Your task to perform on an android device: Go to display settings Image 0: 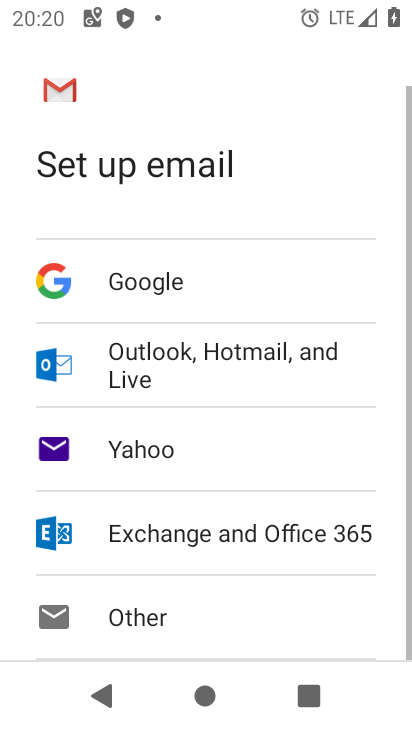
Step 0: press home button
Your task to perform on an android device: Go to display settings Image 1: 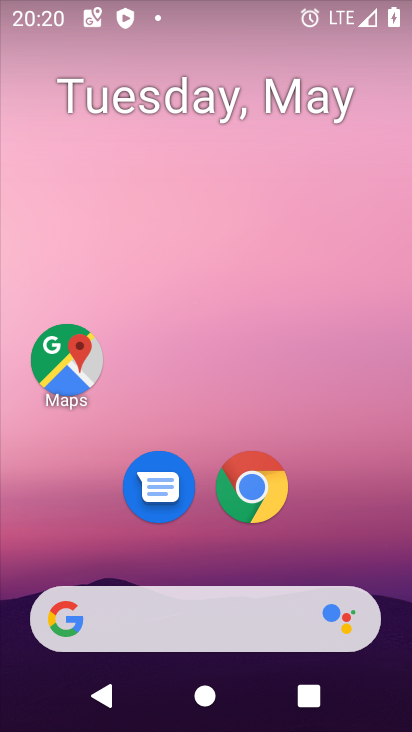
Step 1: drag from (324, 507) to (146, 121)
Your task to perform on an android device: Go to display settings Image 2: 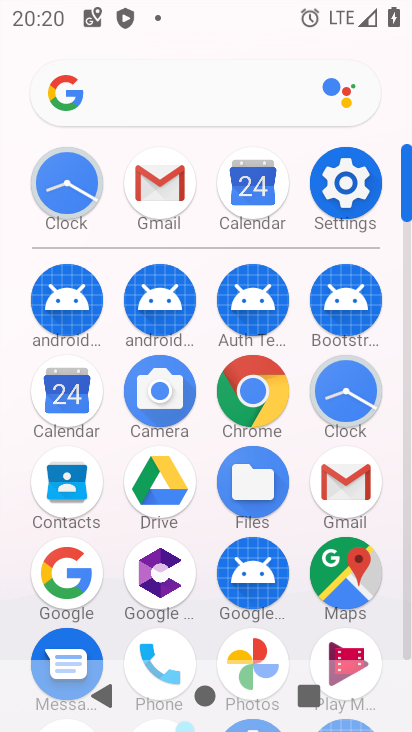
Step 2: click (336, 184)
Your task to perform on an android device: Go to display settings Image 3: 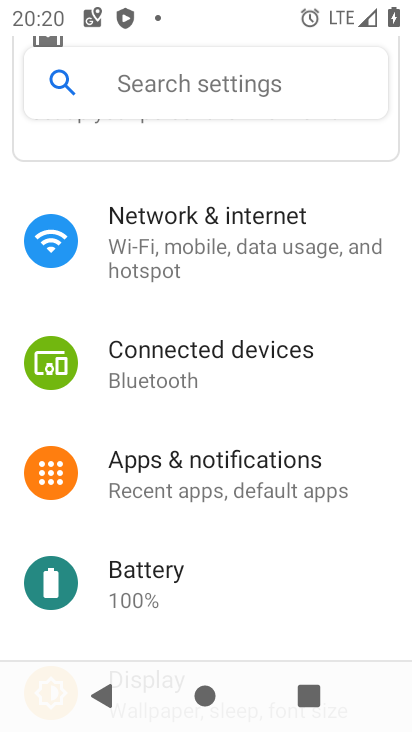
Step 3: drag from (231, 521) to (207, 121)
Your task to perform on an android device: Go to display settings Image 4: 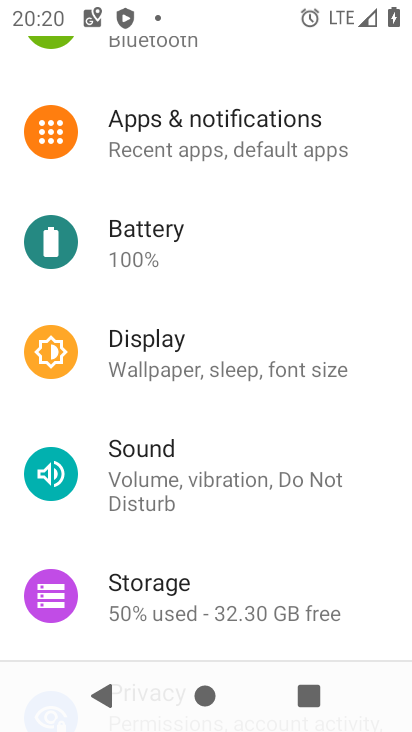
Step 4: click (134, 331)
Your task to perform on an android device: Go to display settings Image 5: 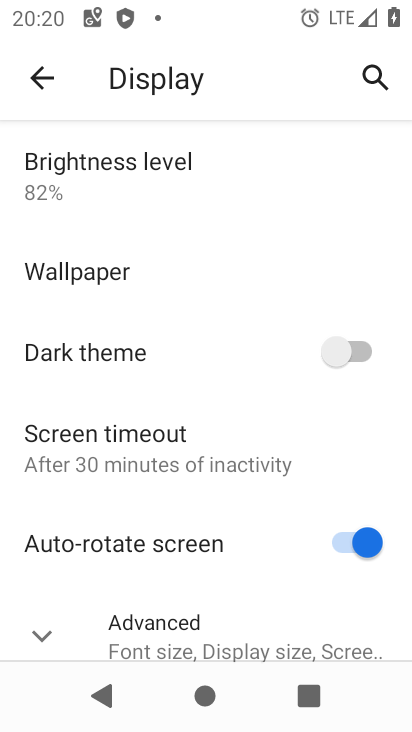
Step 5: task complete